Your task to perform on an android device: star an email in the gmail app Image 0: 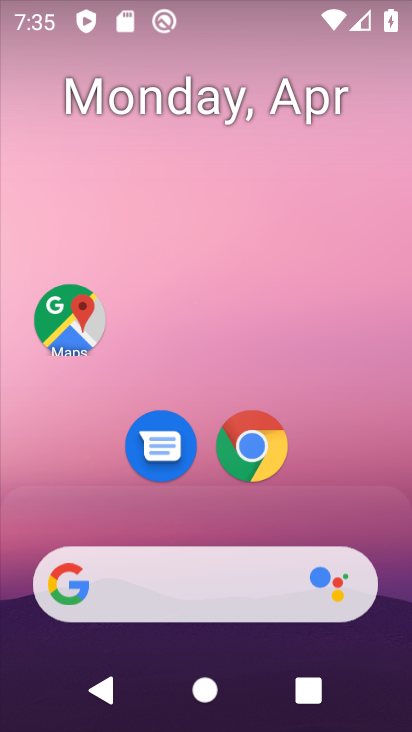
Step 0: drag from (172, 422) to (221, 204)
Your task to perform on an android device: star an email in the gmail app Image 1: 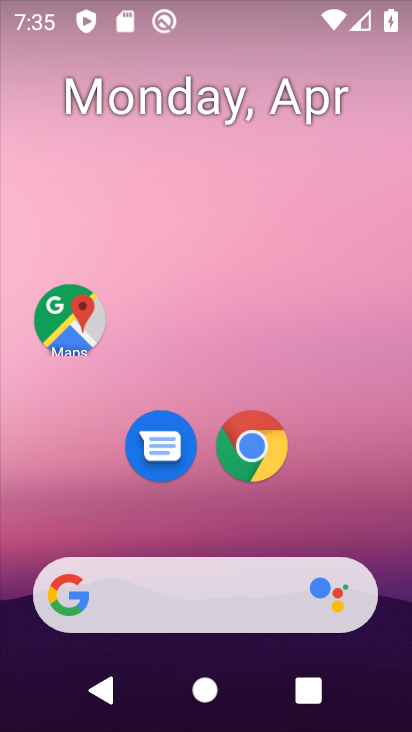
Step 1: drag from (232, 267) to (249, 178)
Your task to perform on an android device: star an email in the gmail app Image 2: 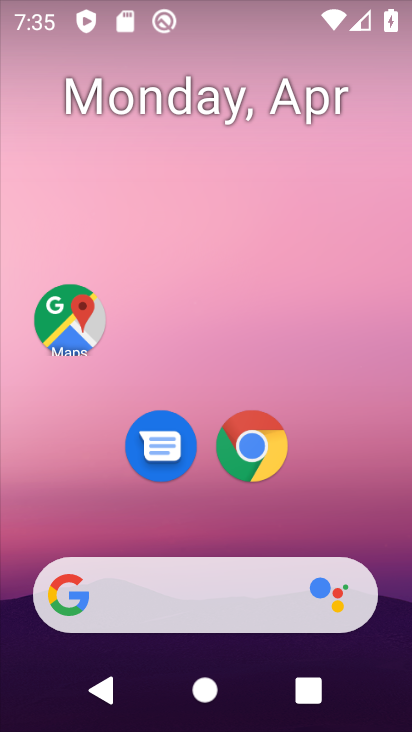
Step 2: drag from (186, 559) to (236, 125)
Your task to perform on an android device: star an email in the gmail app Image 3: 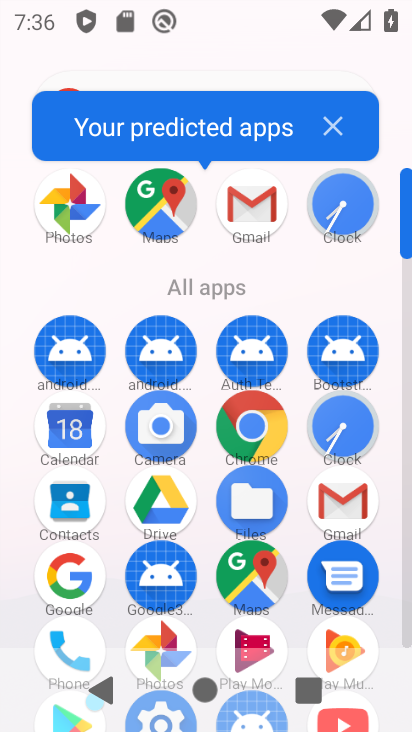
Step 3: click (263, 215)
Your task to perform on an android device: star an email in the gmail app Image 4: 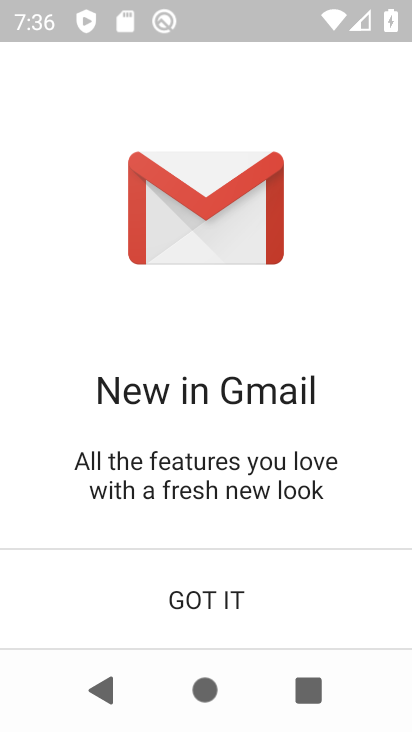
Step 4: click (203, 594)
Your task to perform on an android device: star an email in the gmail app Image 5: 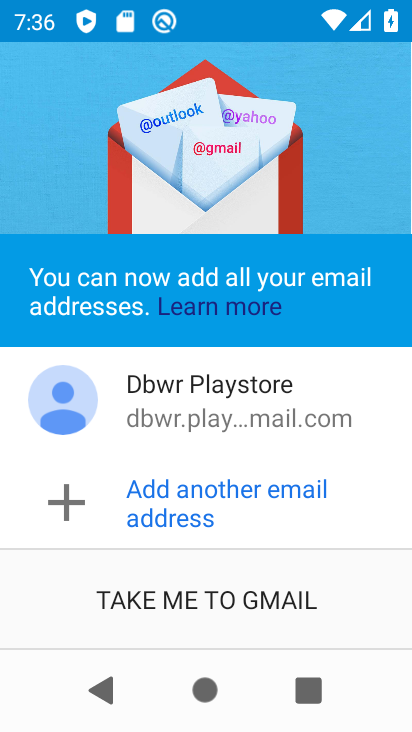
Step 5: click (230, 608)
Your task to perform on an android device: star an email in the gmail app Image 6: 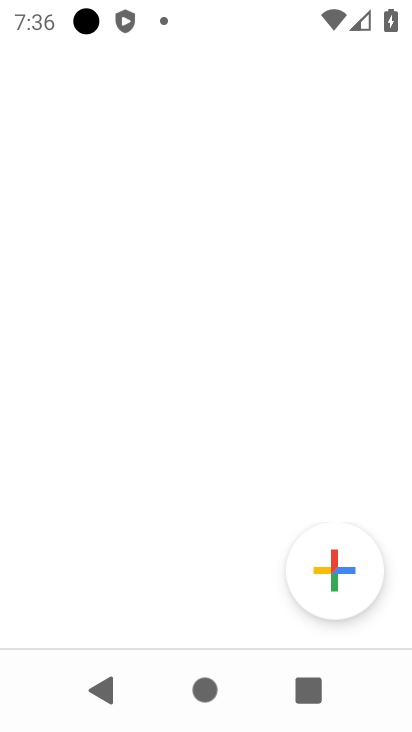
Step 6: click (166, 603)
Your task to perform on an android device: star an email in the gmail app Image 7: 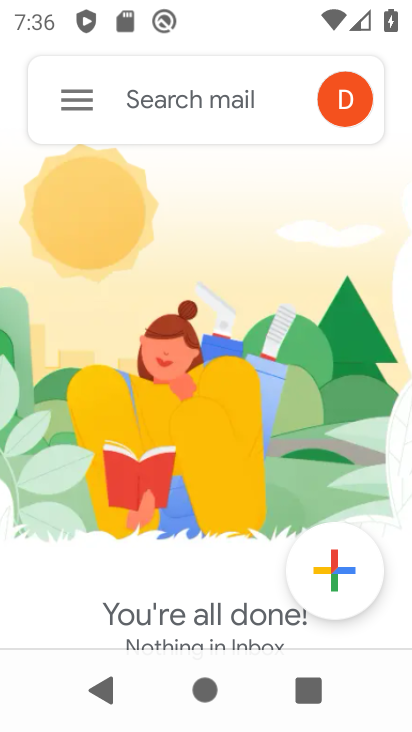
Step 7: click (68, 91)
Your task to perform on an android device: star an email in the gmail app Image 8: 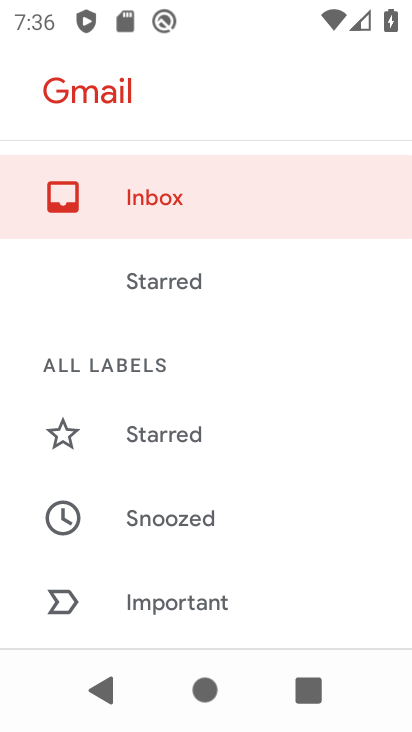
Step 8: drag from (217, 546) to (250, 266)
Your task to perform on an android device: star an email in the gmail app Image 9: 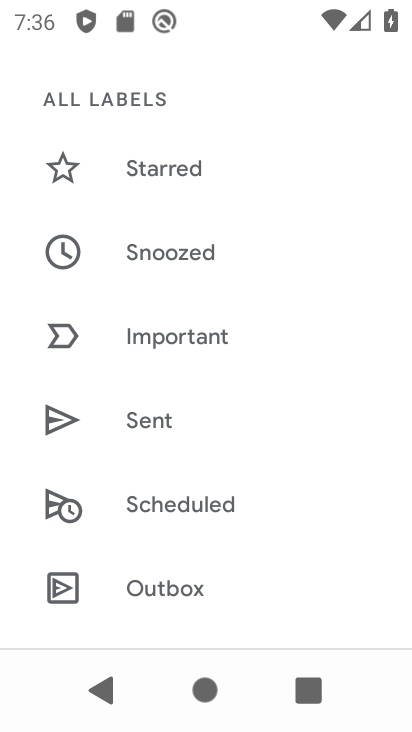
Step 9: drag from (171, 570) to (262, 268)
Your task to perform on an android device: star an email in the gmail app Image 10: 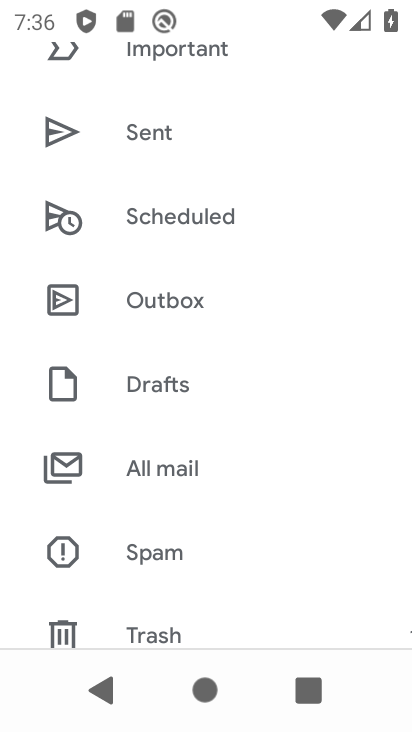
Step 10: click (160, 510)
Your task to perform on an android device: star an email in the gmail app Image 11: 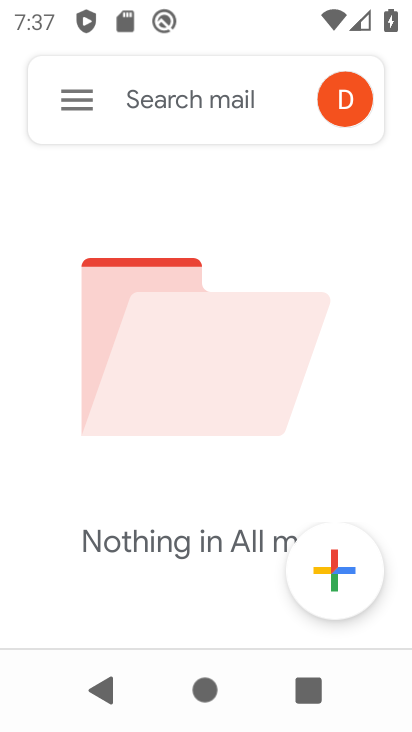
Step 11: task complete